Your task to perform on an android device: Open the calendar and show me this week's events? Image 0: 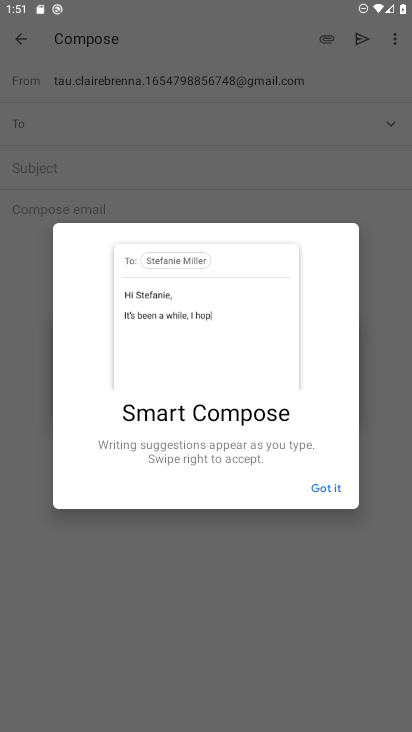
Step 0: press home button
Your task to perform on an android device: Open the calendar and show me this week's events? Image 1: 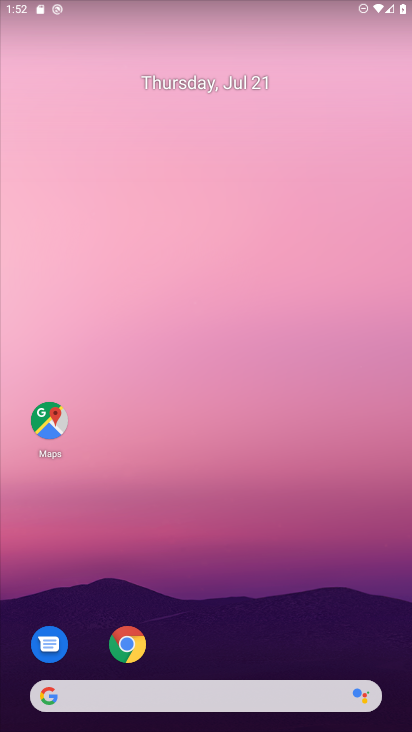
Step 1: drag from (271, 602) to (277, 51)
Your task to perform on an android device: Open the calendar and show me this week's events? Image 2: 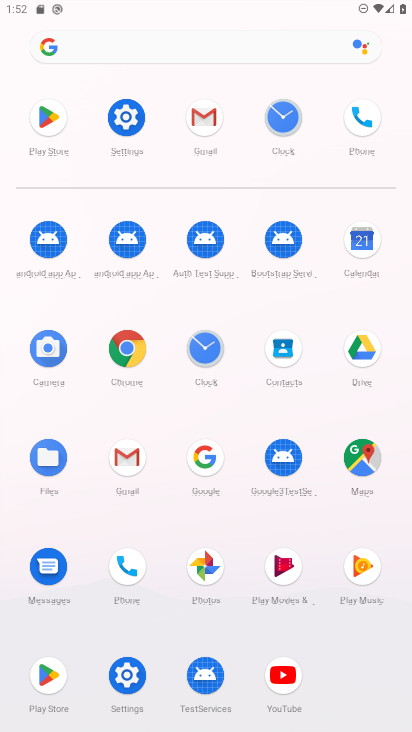
Step 2: click (363, 251)
Your task to perform on an android device: Open the calendar and show me this week's events? Image 3: 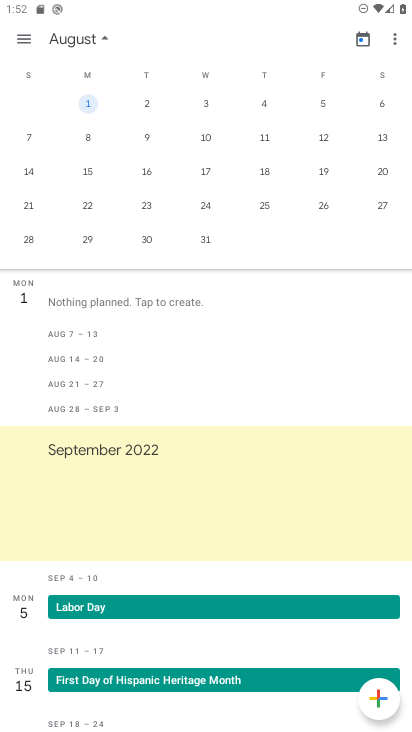
Step 3: drag from (51, 198) to (381, 207)
Your task to perform on an android device: Open the calendar and show me this week's events? Image 4: 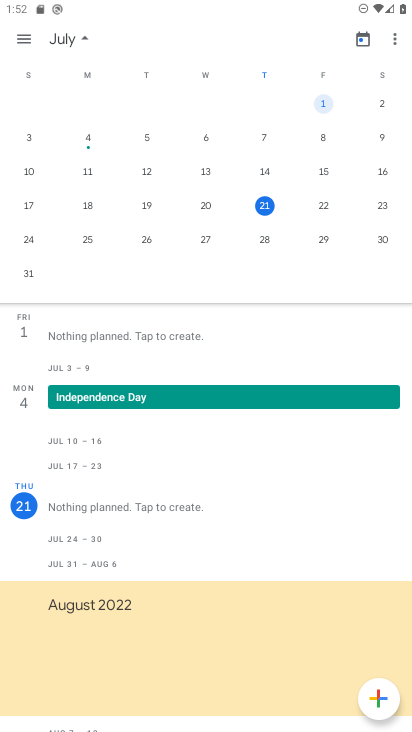
Step 4: click (272, 211)
Your task to perform on an android device: Open the calendar and show me this week's events? Image 5: 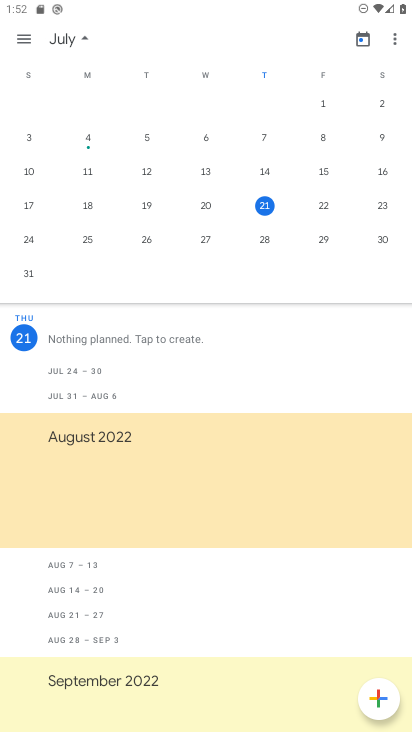
Step 5: click (303, 204)
Your task to perform on an android device: Open the calendar and show me this week's events? Image 6: 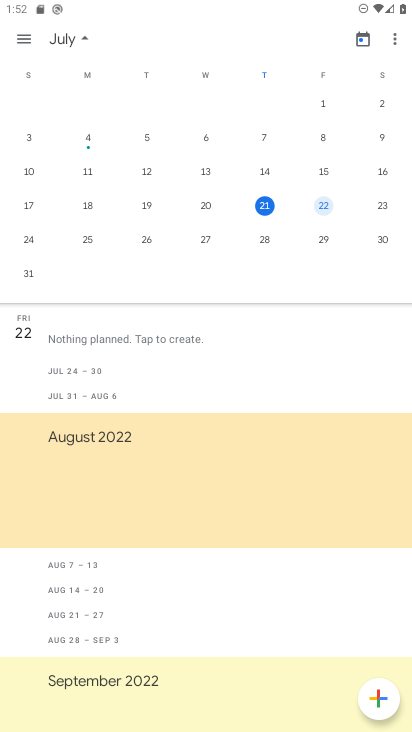
Step 6: click (360, 204)
Your task to perform on an android device: Open the calendar and show me this week's events? Image 7: 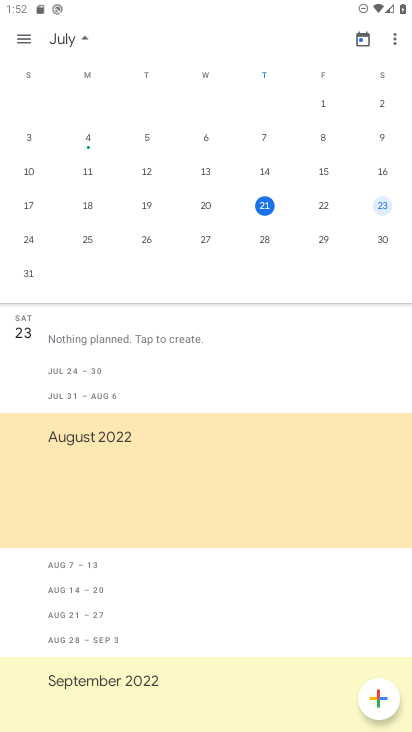
Step 7: task complete